Your task to perform on an android device: check the backup settings in the google photos Image 0: 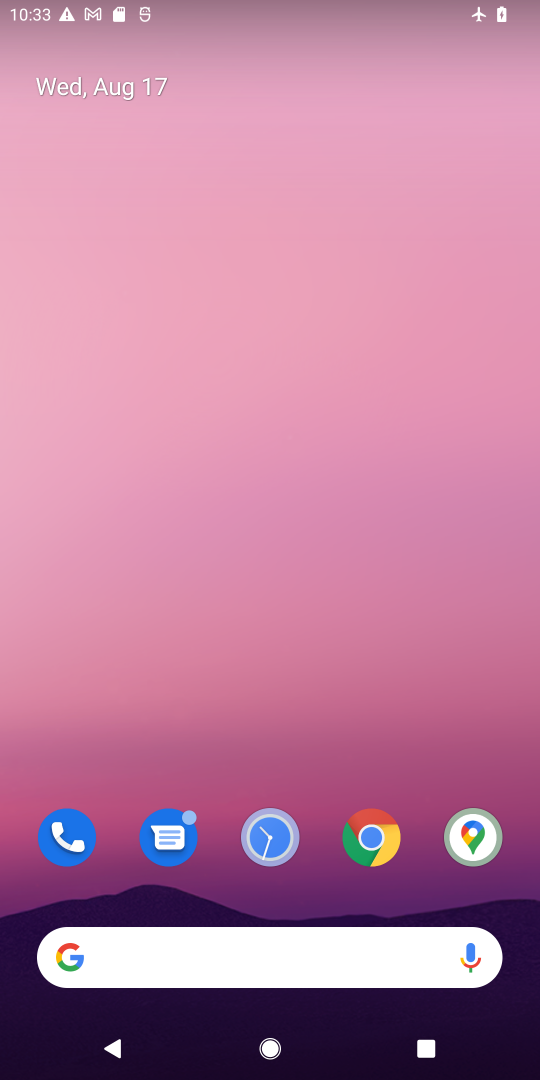
Step 0: drag from (224, 964) to (367, 317)
Your task to perform on an android device: check the backup settings in the google photos Image 1: 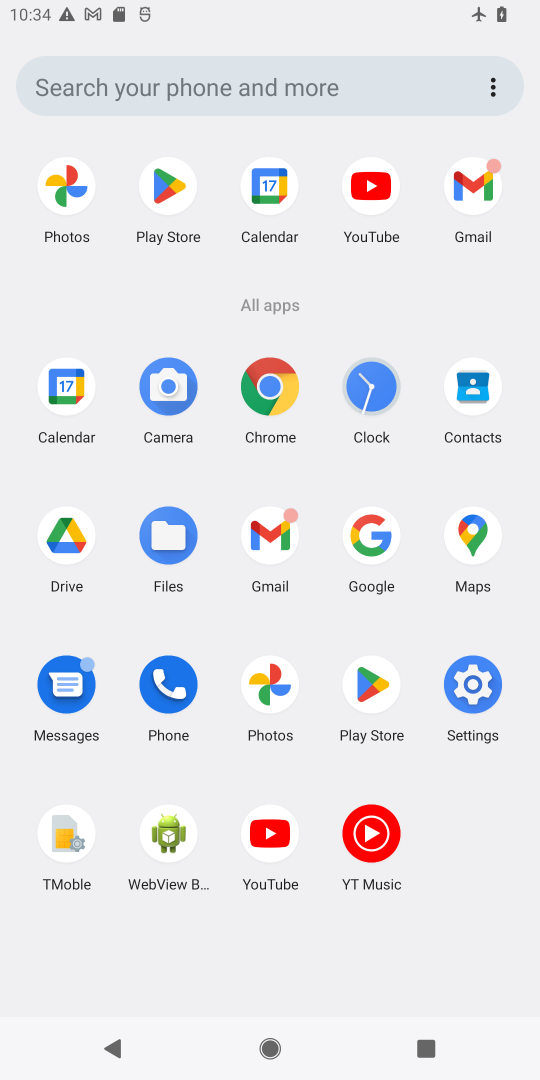
Step 1: click (272, 683)
Your task to perform on an android device: check the backup settings in the google photos Image 2: 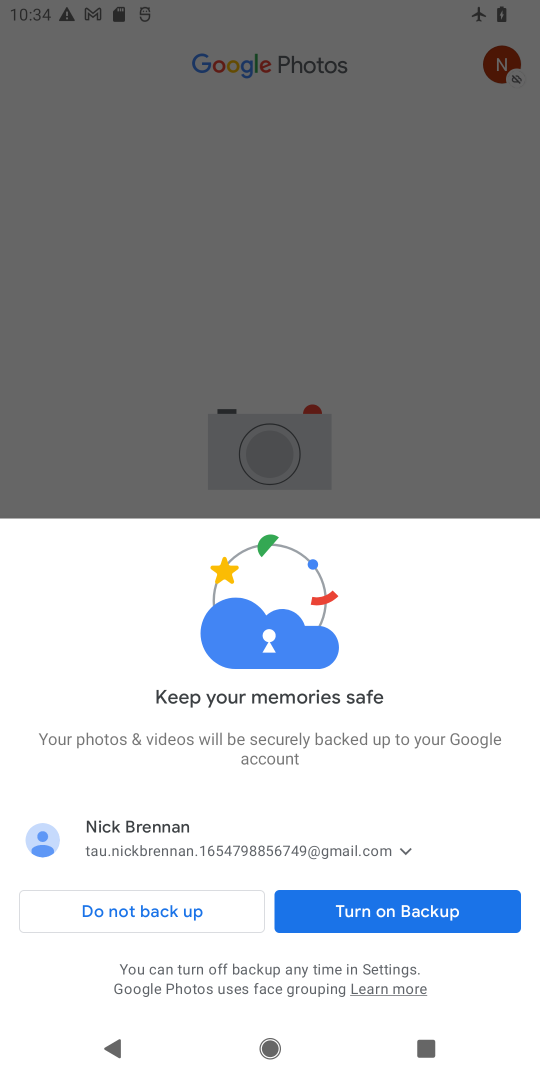
Step 2: click (373, 918)
Your task to perform on an android device: check the backup settings in the google photos Image 3: 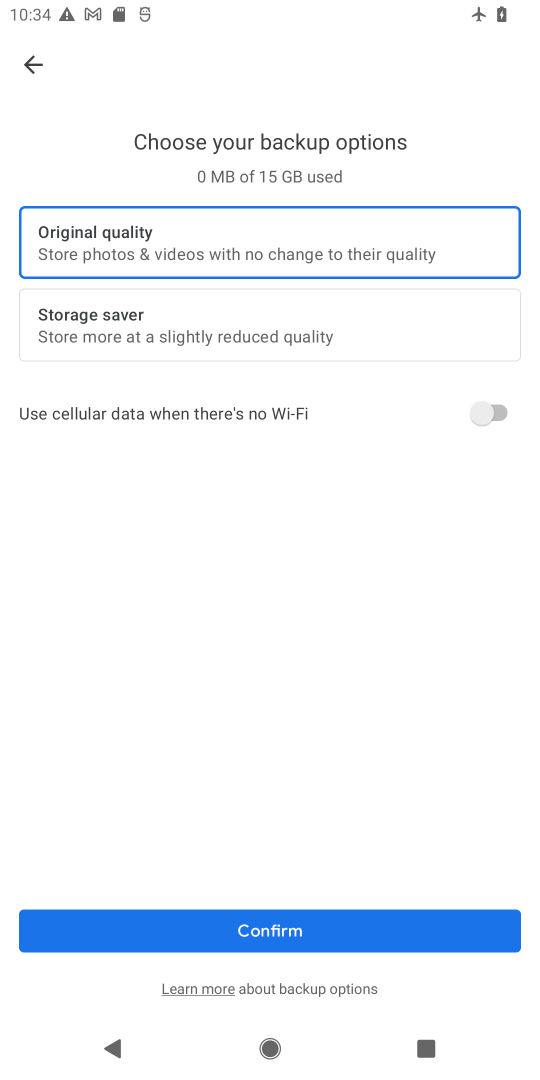
Step 3: click (312, 928)
Your task to perform on an android device: check the backup settings in the google photos Image 4: 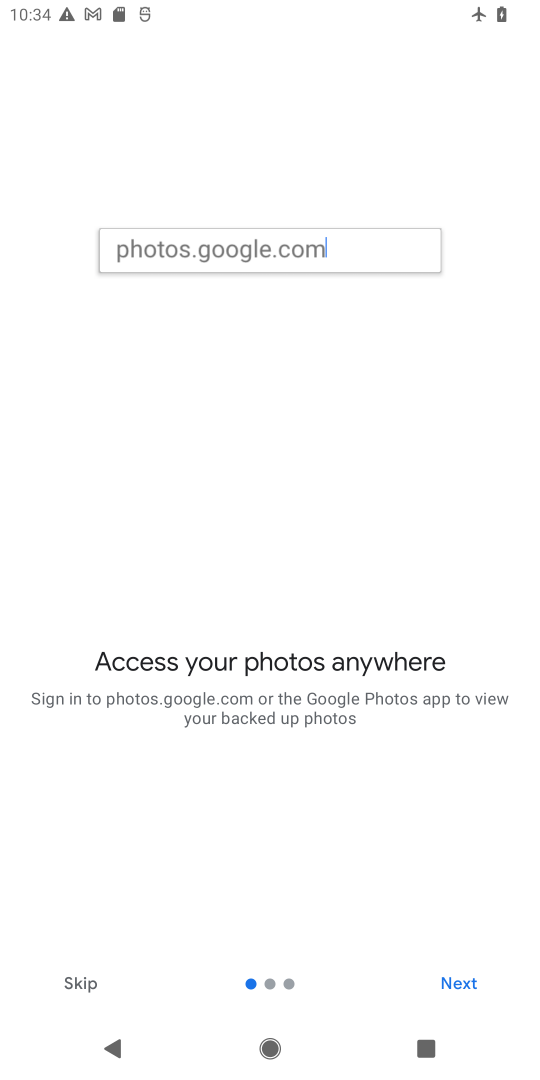
Step 4: click (464, 969)
Your task to perform on an android device: check the backup settings in the google photos Image 5: 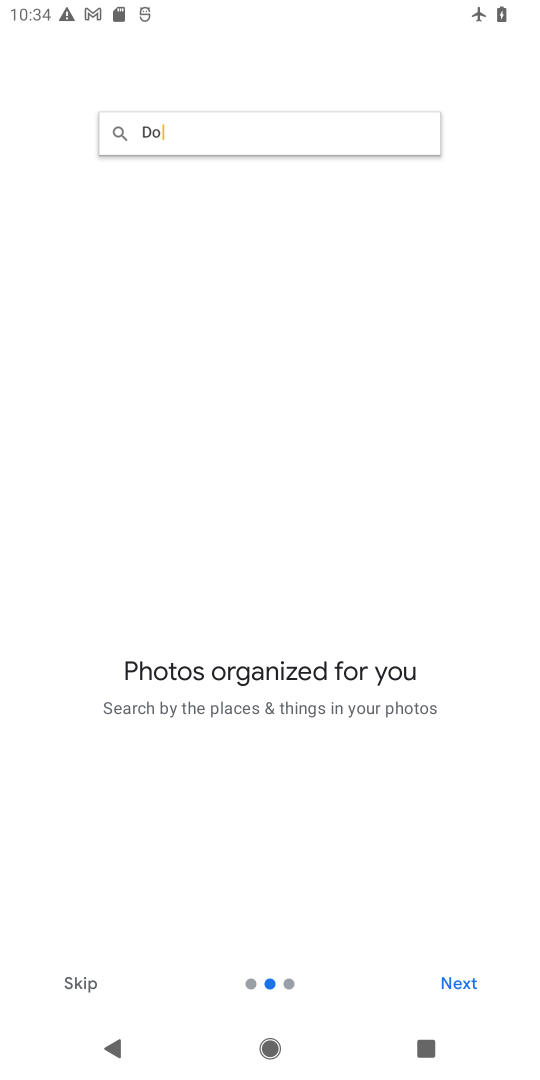
Step 5: click (464, 969)
Your task to perform on an android device: check the backup settings in the google photos Image 6: 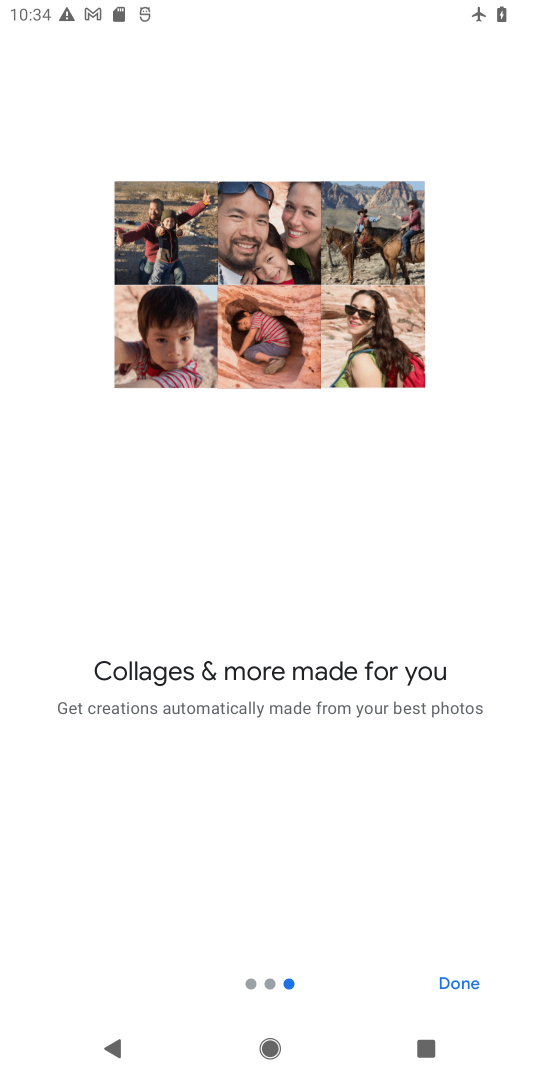
Step 6: click (464, 969)
Your task to perform on an android device: check the backup settings in the google photos Image 7: 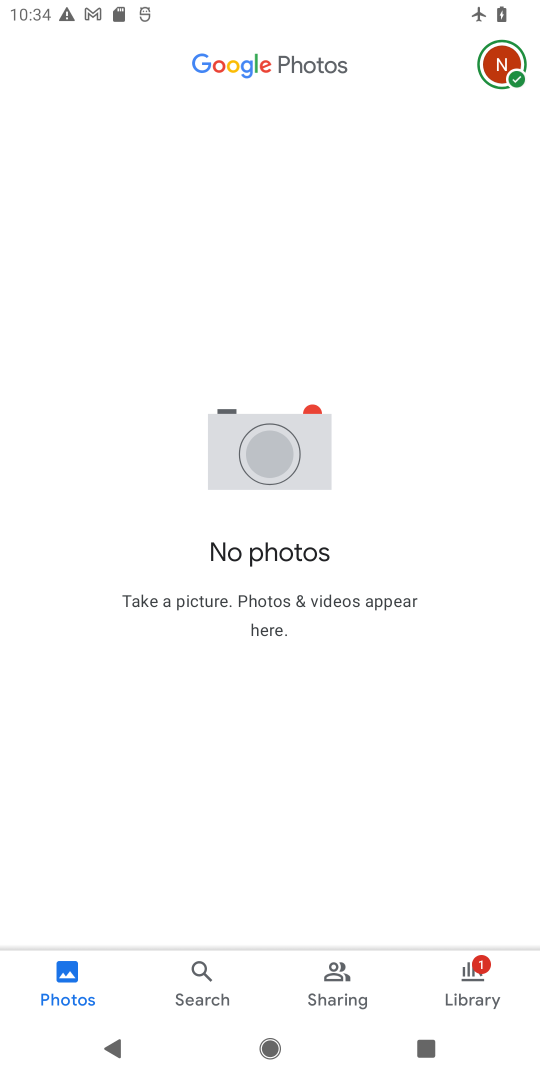
Step 7: click (495, 75)
Your task to perform on an android device: check the backup settings in the google photos Image 8: 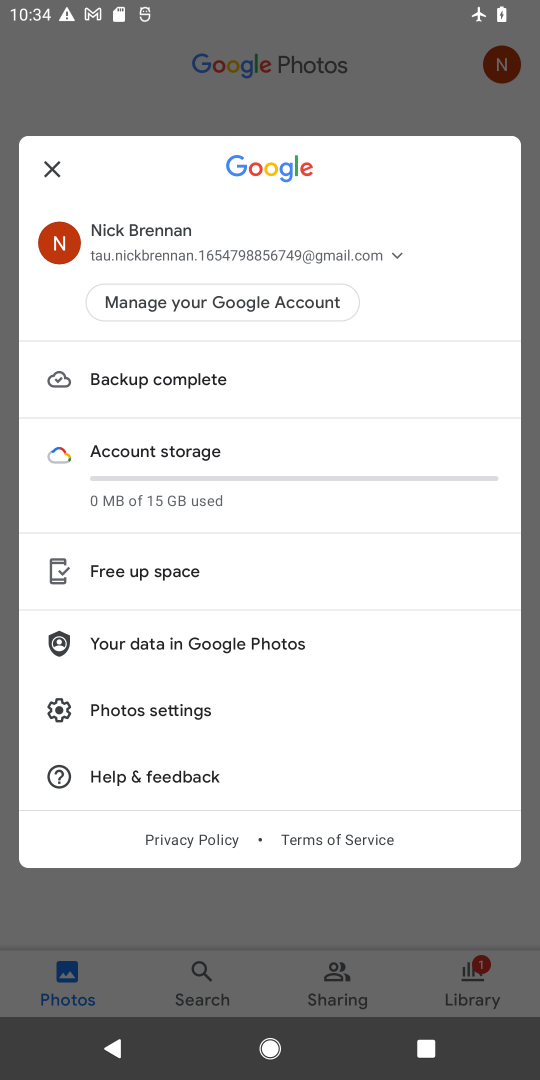
Step 8: click (141, 709)
Your task to perform on an android device: check the backup settings in the google photos Image 9: 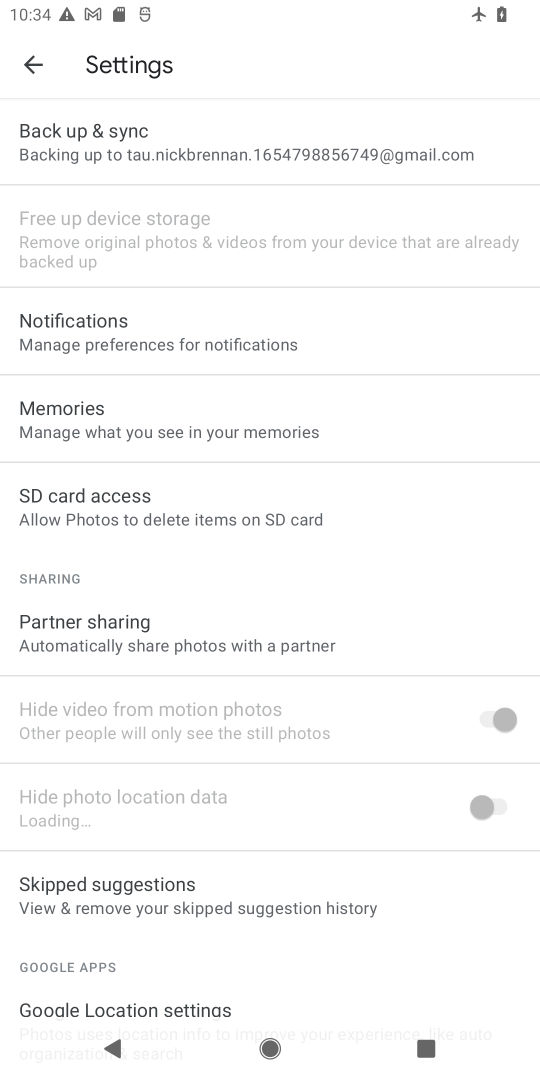
Step 9: click (220, 151)
Your task to perform on an android device: check the backup settings in the google photos Image 10: 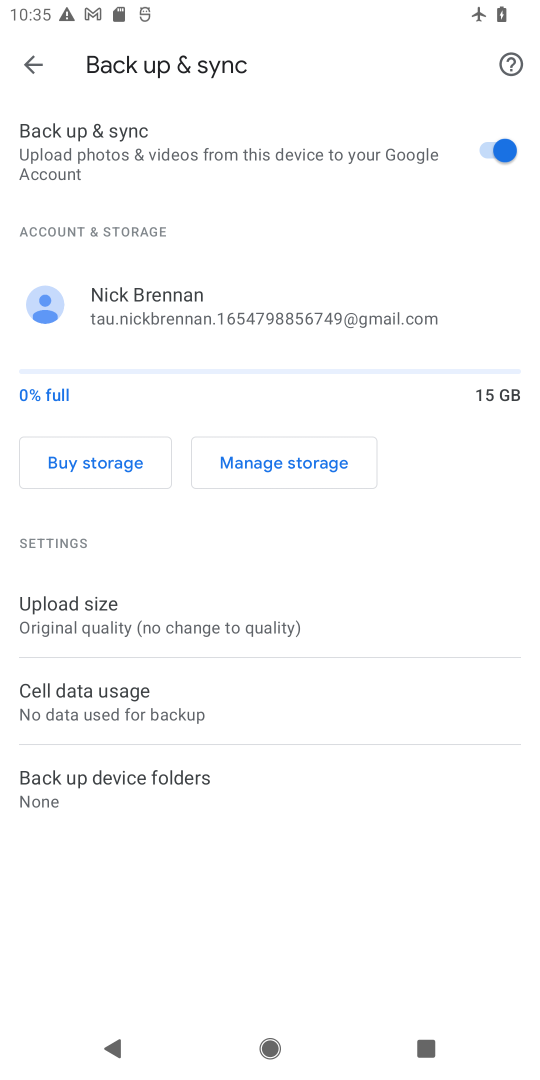
Step 10: task complete